Your task to perform on an android device: set the stopwatch Image 0: 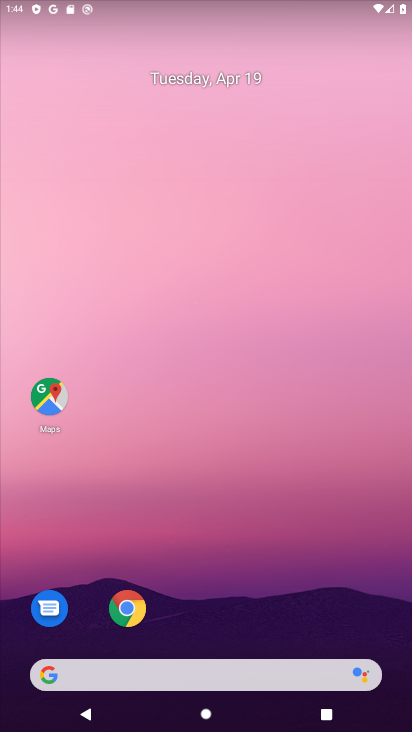
Step 0: drag from (320, 371) to (296, 0)
Your task to perform on an android device: set the stopwatch Image 1: 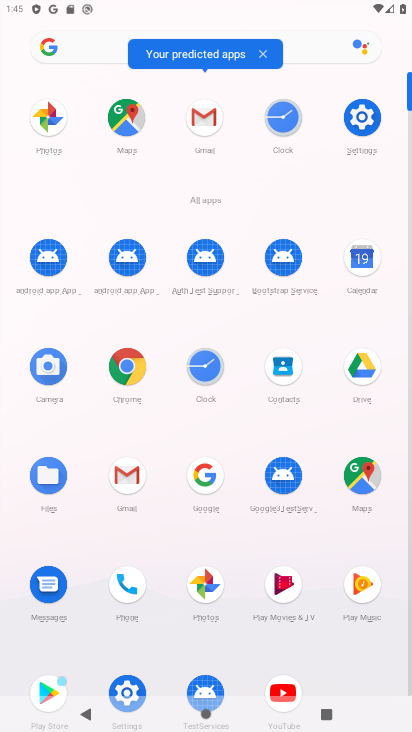
Step 1: click (283, 122)
Your task to perform on an android device: set the stopwatch Image 2: 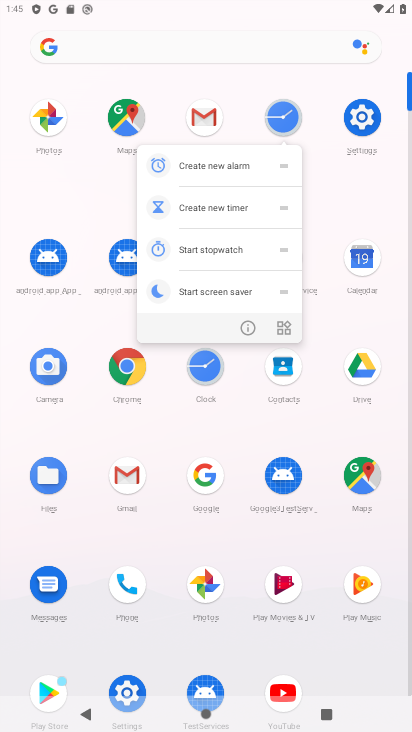
Step 2: click (283, 111)
Your task to perform on an android device: set the stopwatch Image 3: 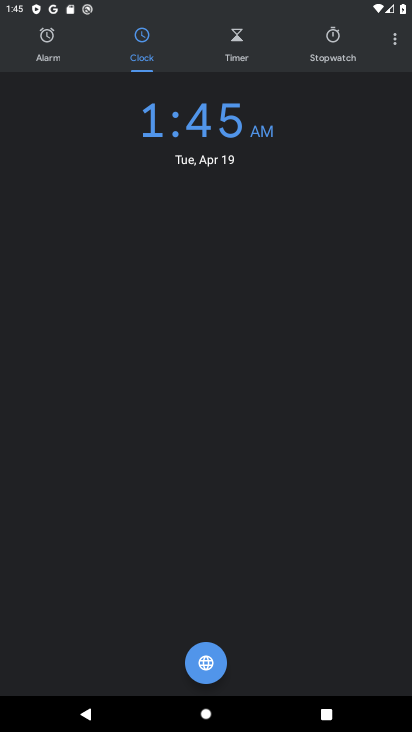
Step 3: click (397, 38)
Your task to perform on an android device: set the stopwatch Image 4: 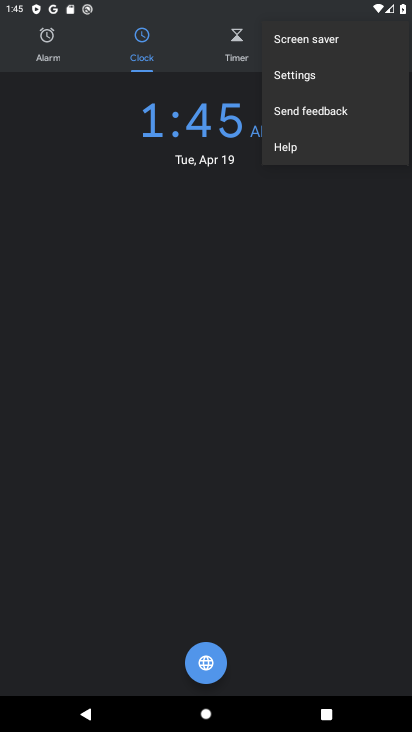
Step 4: click (337, 69)
Your task to perform on an android device: set the stopwatch Image 5: 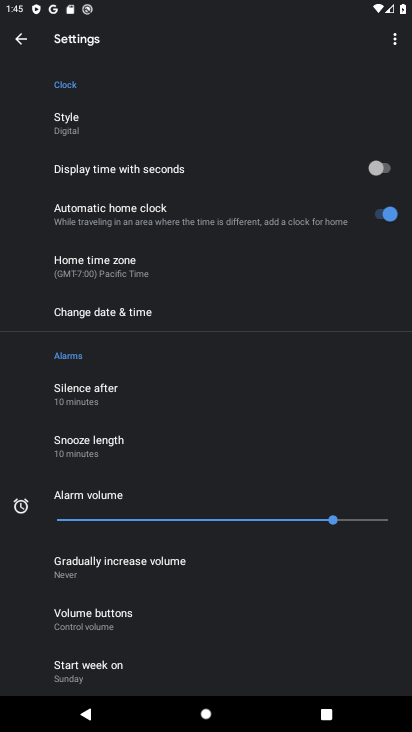
Step 5: click (18, 31)
Your task to perform on an android device: set the stopwatch Image 6: 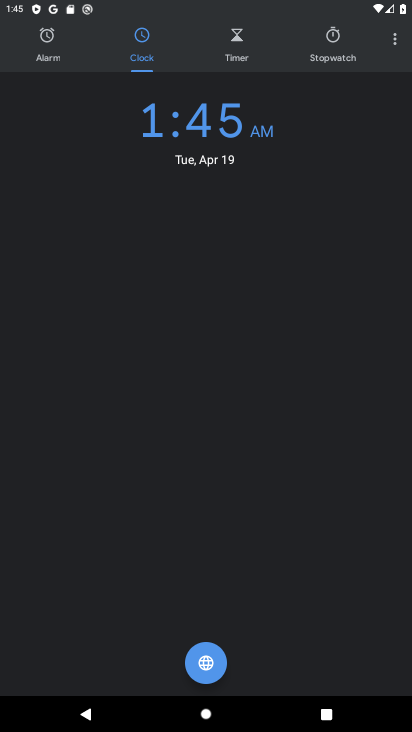
Step 6: click (334, 36)
Your task to perform on an android device: set the stopwatch Image 7: 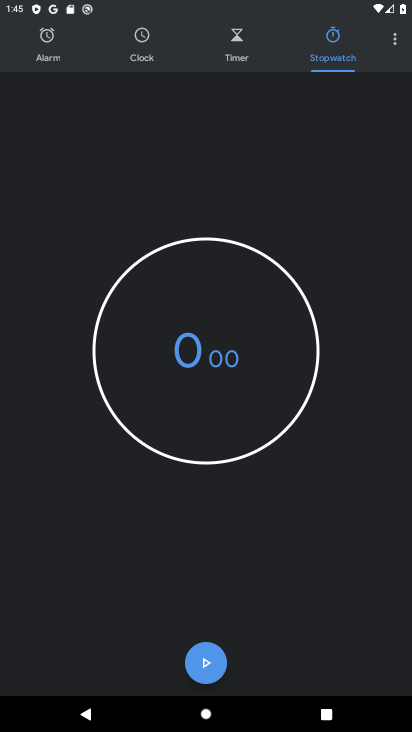
Step 7: click (208, 664)
Your task to perform on an android device: set the stopwatch Image 8: 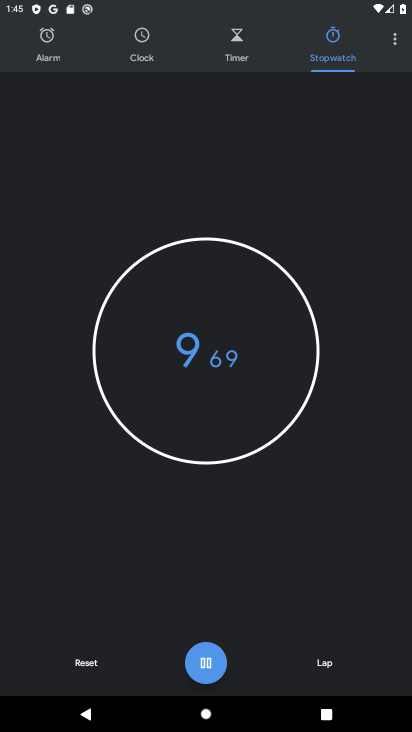
Step 8: task complete